Your task to perform on an android device: show emergency info Image 0: 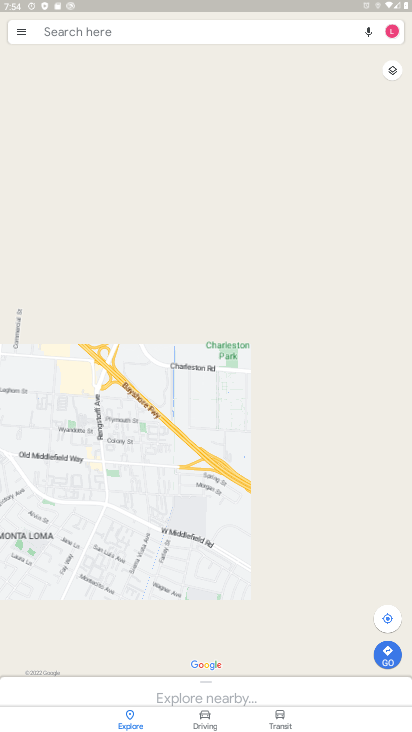
Step 0: drag from (163, 47) to (246, 23)
Your task to perform on an android device: show emergency info Image 1: 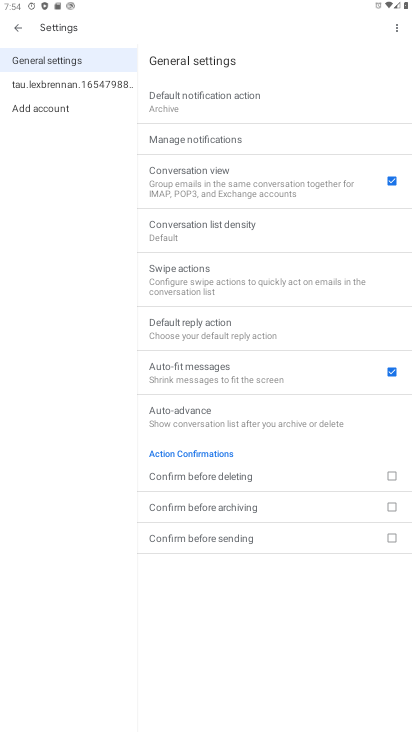
Step 1: press home button
Your task to perform on an android device: show emergency info Image 2: 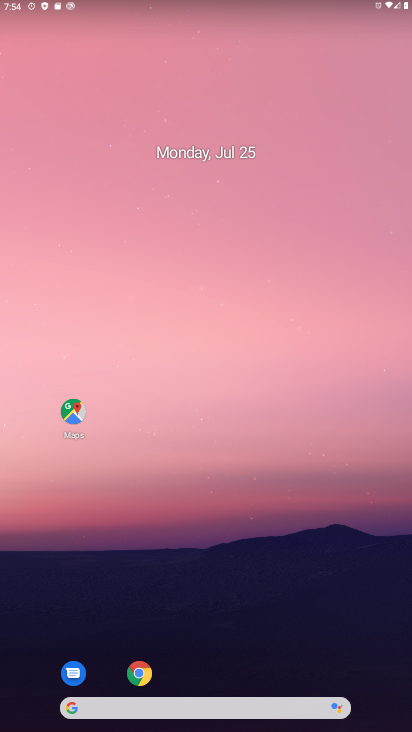
Step 2: drag from (336, 600) to (129, 43)
Your task to perform on an android device: show emergency info Image 3: 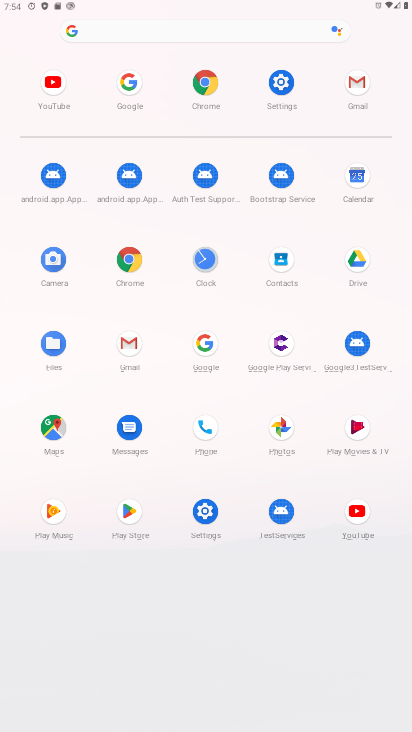
Step 3: click (209, 512)
Your task to perform on an android device: show emergency info Image 4: 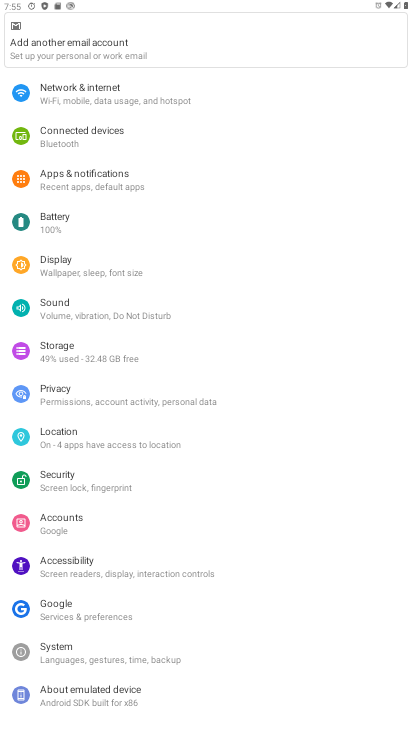
Step 4: click (88, 687)
Your task to perform on an android device: show emergency info Image 5: 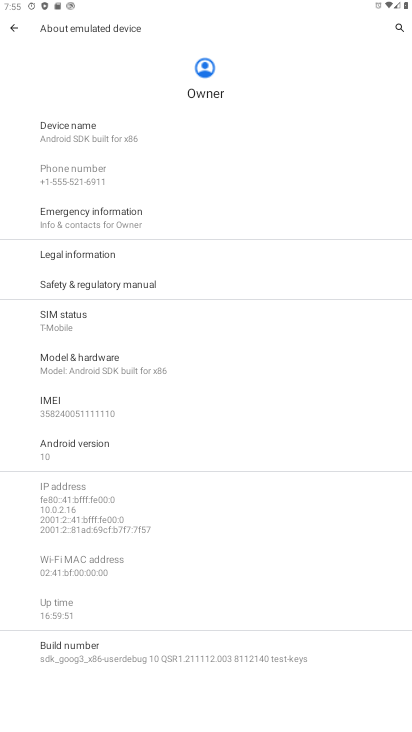
Step 5: click (154, 217)
Your task to perform on an android device: show emergency info Image 6: 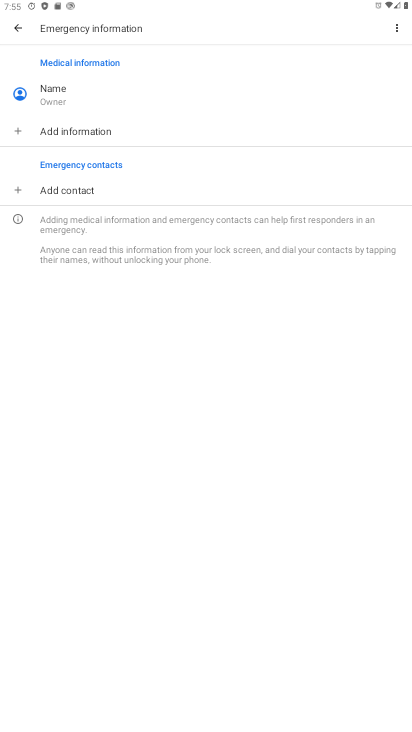
Step 6: task complete